Your task to perform on an android device: Search for sushi restaurants on Maps Image 0: 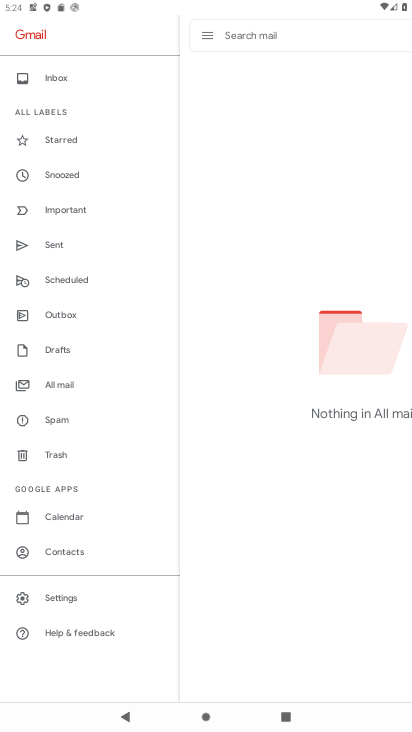
Step 0: press home button
Your task to perform on an android device: Search for sushi restaurants on Maps Image 1: 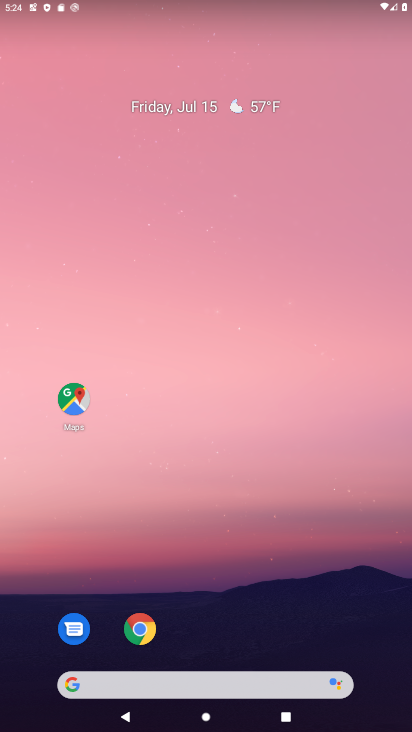
Step 1: click (71, 400)
Your task to perform on an android device: Search for sushi restaurants on Maps Image 2: 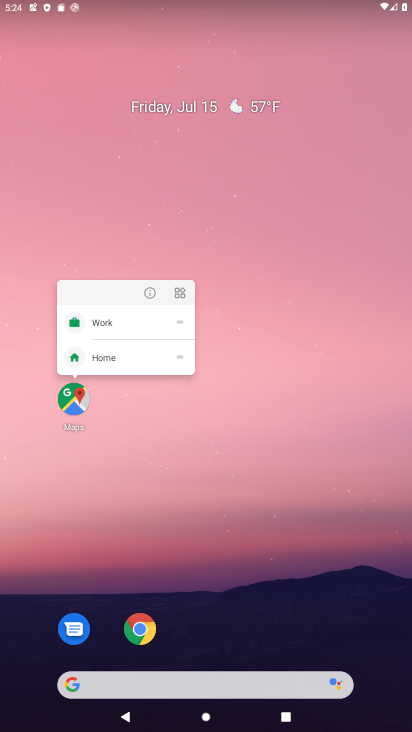
Step 2: click (68, 406)
Your task to perform on an android device: Search for sushi restaurants on Maps Image 3: 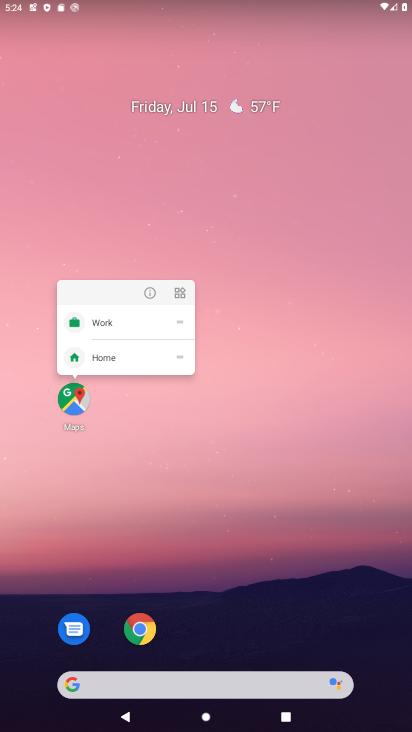
Step 3: click (72, 397)
Your task to perform on an android device: Search for sushi restaurants on Maps Image 4: 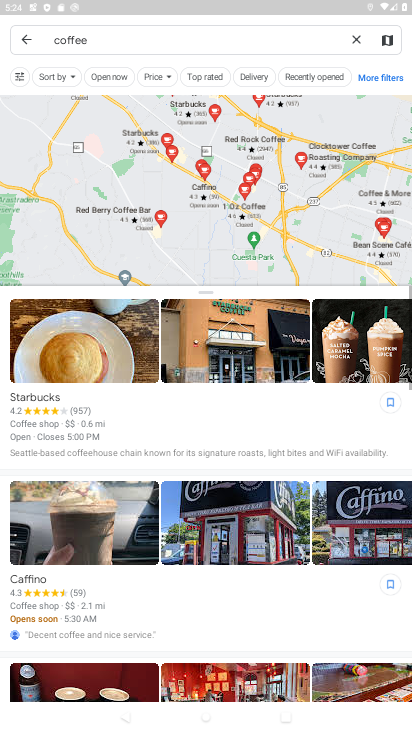
Step 4: click (351, 38)
Your task to perform on an android device: Search for sushi restaurants on Maps Image 5: 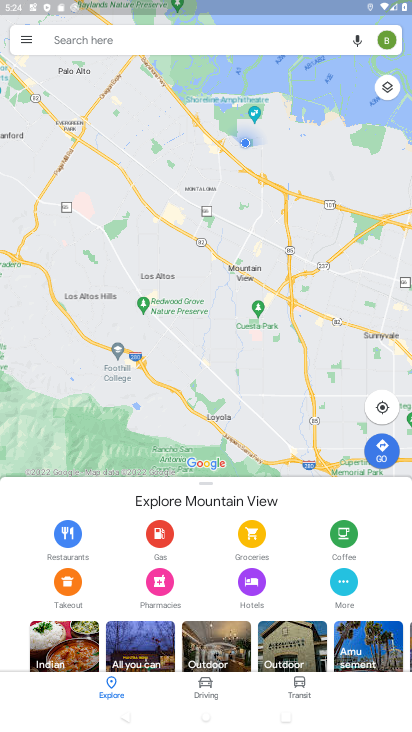
Step 5: type " sushi restaurants"
Your task to perform on an android device: Search for sushi restaurants on Maps Image 6: 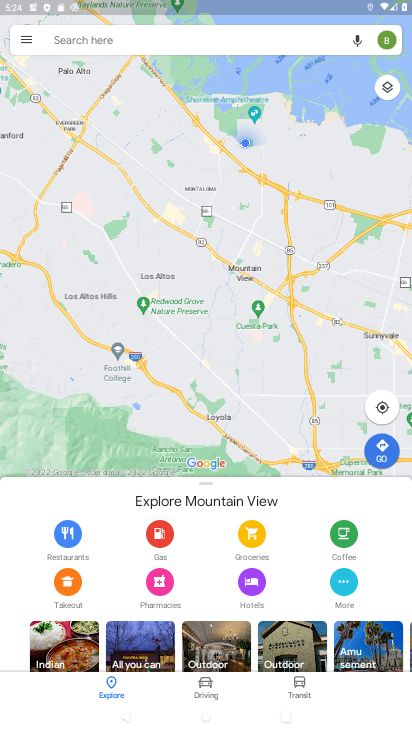
Step 6: click (53, 35)
Your task to perform on an android device: Search for sushi restaurants on Maps Image 7: 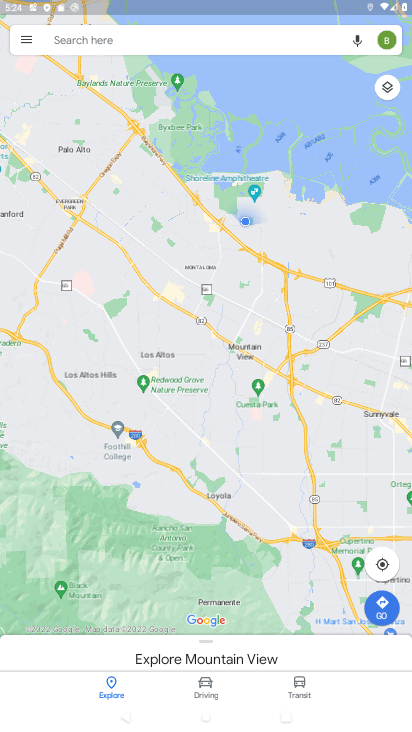
Step 7: type " sushi restaurants"
Your task to perform on an android device: Search for sushi restaurants on Maps Image 8: 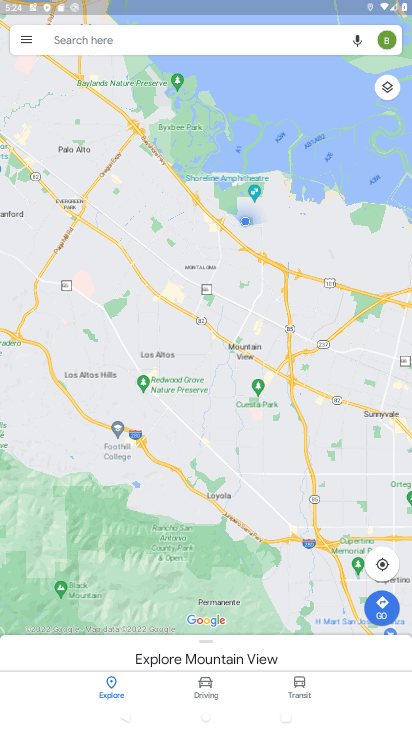
Step 8: click (88, 40)
Your task to perform on an android device: Search for sushi restaurants on Maps Image 9: 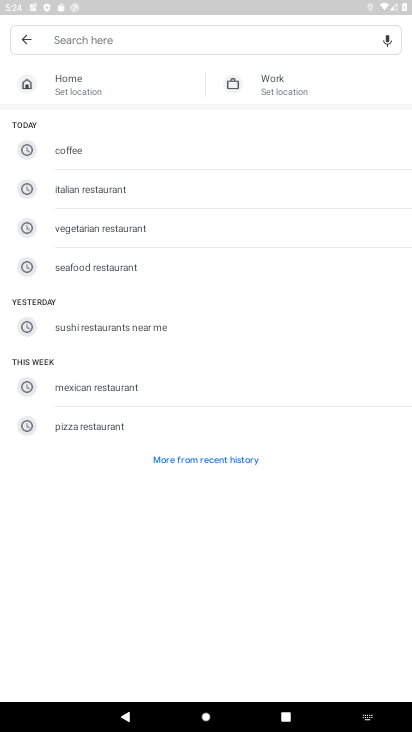
Step 9: click (88, 40)
Your task to perform on an android device: Search for sushi restaurants on Maps Image 10: 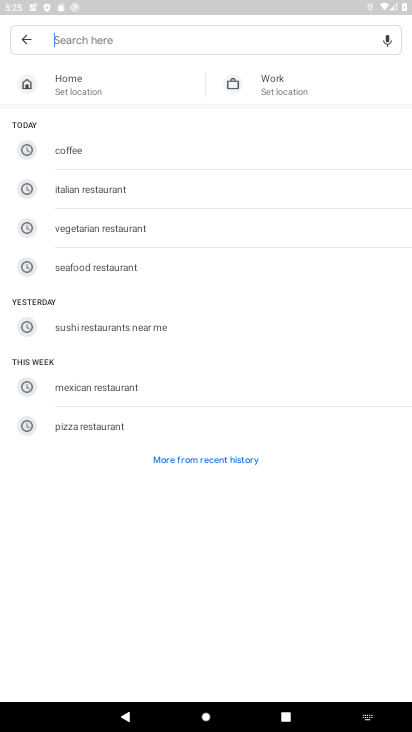
Step 10: type " sushi restaurants"
Your task to perform on an android device: Search for sushi restaurants on Maps Image 11: 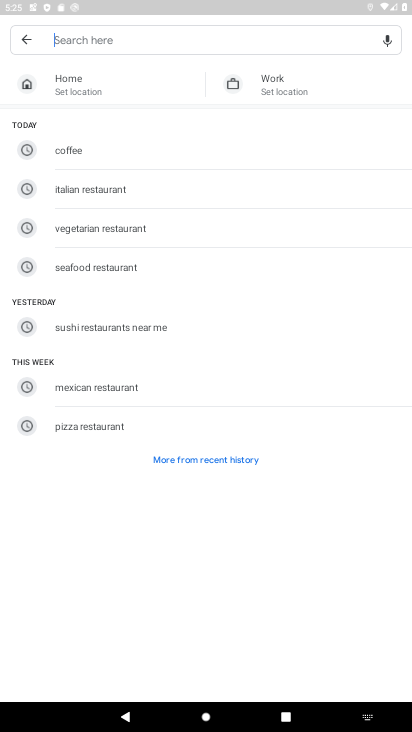
Step 11: click (82, 41)
Your task to perform on an android device: Search for sushi restaurants on Maps Image 12: 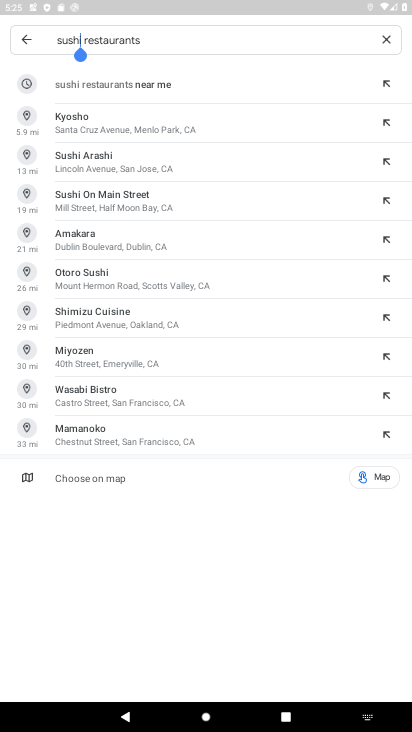
Step 12: press enter
Your task to perform on an android device: Search for sushi restaurants on Maps Image 13: 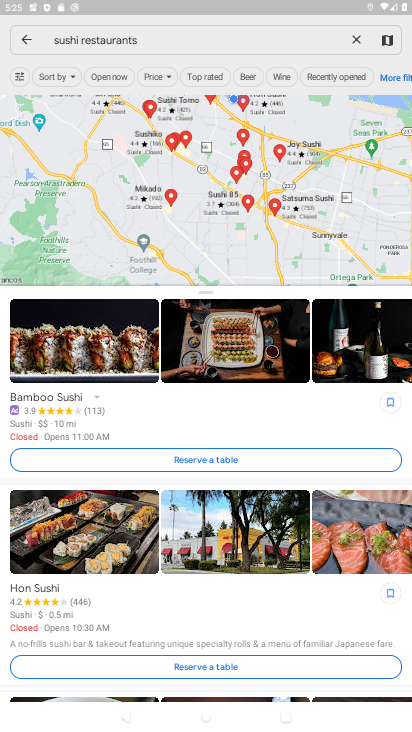
Step 13: task complete